Your task to perform on an android device: set the timer Image 0: 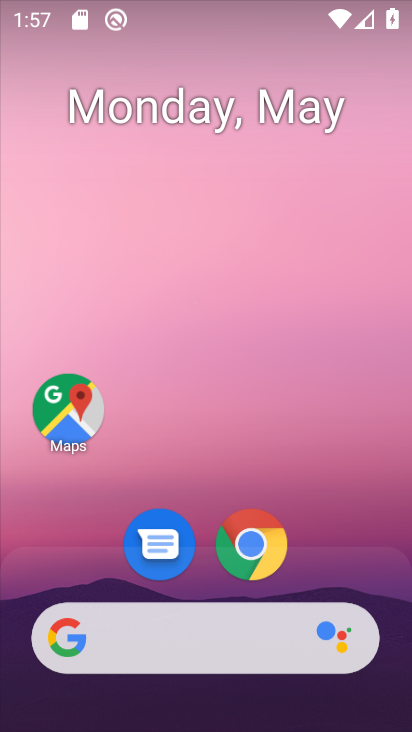
Step 0: drag from (196, 583) to (197, 196)
Your task to perform on an android device: set the timer Image 1: 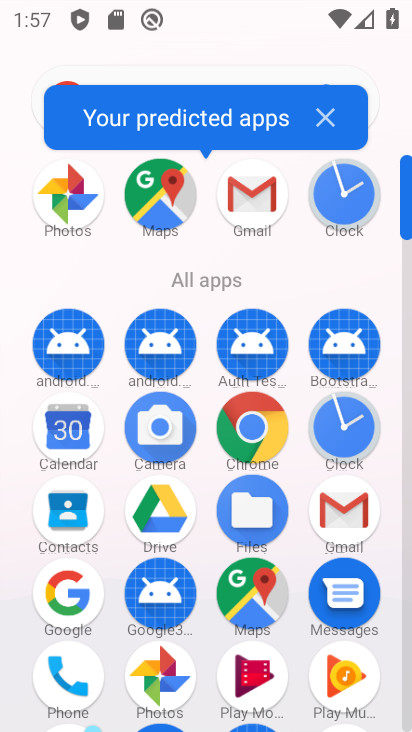
Step 1: click (320, 216)
Your task to perform on an android device: set the timer Image 2: 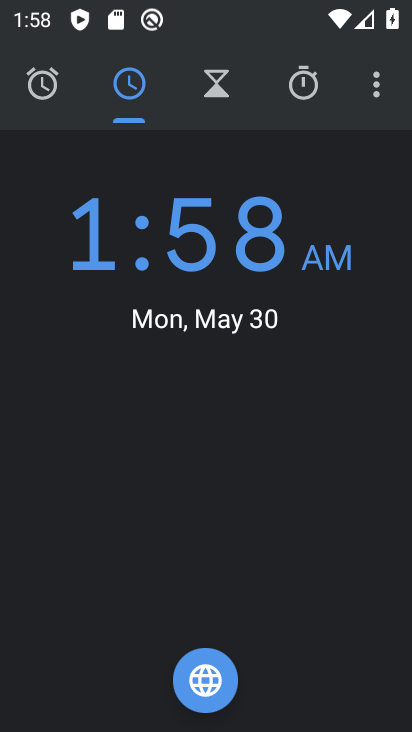
Step 2: click (223, 81)
Your task to perform on an android device: set the timer Image 3: 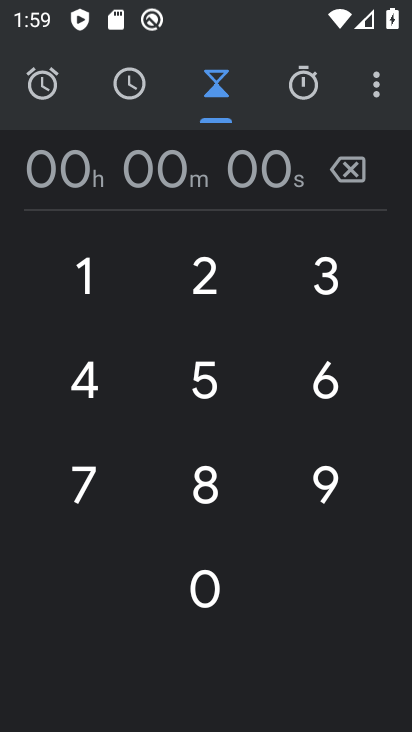
Step 3: click (285, 177)
Your task to perform on an android device: set the timer Image 4: 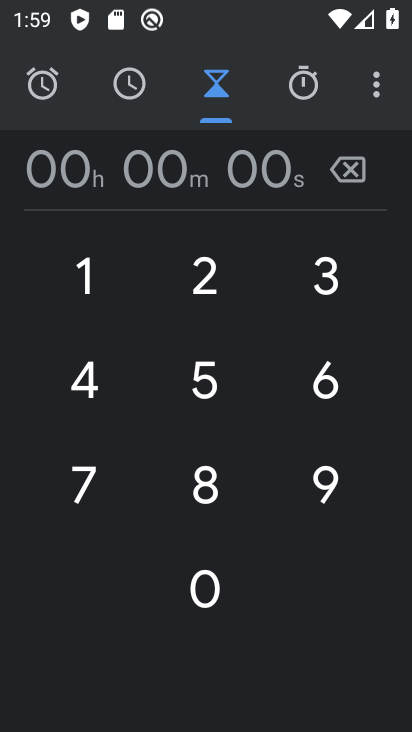
Step 4: type "11"
Your task to perform on an android device: set the timer Image 5: 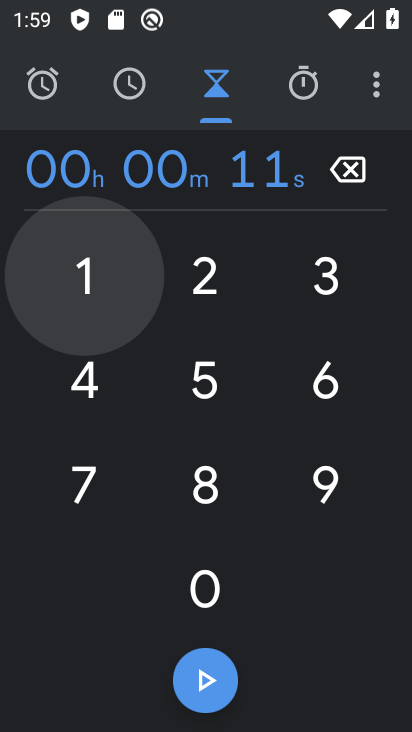
Step 5: click (208, 689)
Your task to perform on an android device: set the timer Image 6: 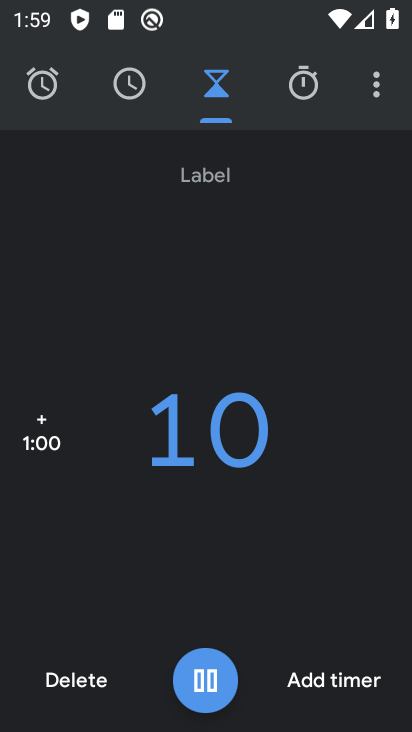
Step 6: task complete